Your task to perform on an android device: add a contact in the contacts app Image 0: 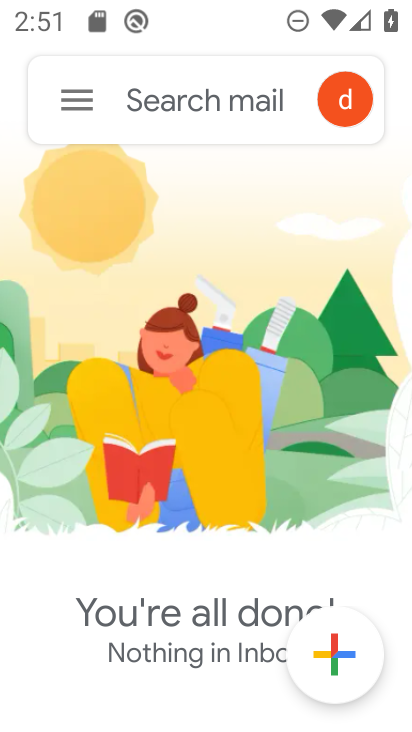
Step 0: press back button
Your task to perform on an android device: add a contact in the contacts app Image 1: 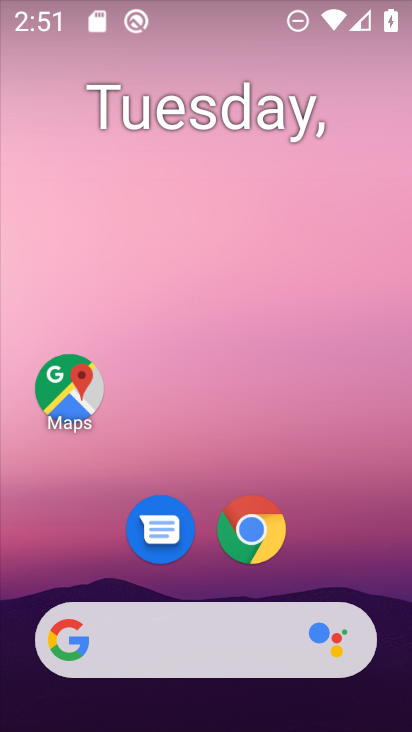
Step 1: drag from (220, 478) to (286, 33)
Your task to perform on an android device: add a contact in the contacts app Image 2: 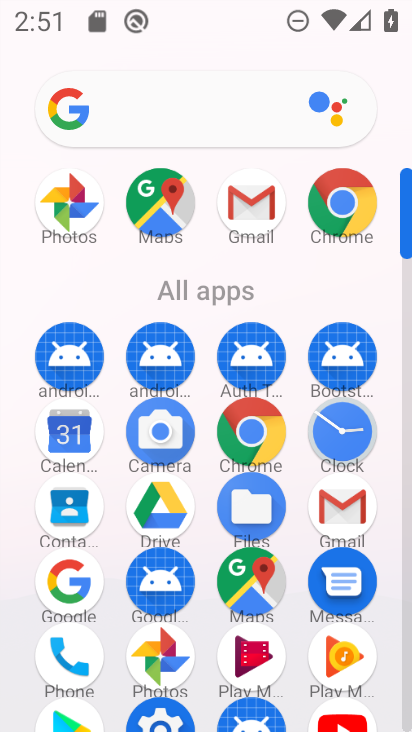
Step 2: click (66, 523)
Your task to perform on an android device: add a contact in the contacts app Image 3: 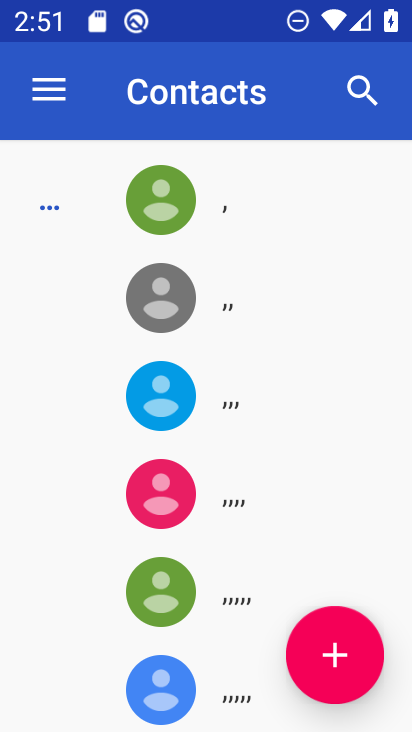
Step 3: click (336, 647)
Your task to perform on an android device: add a contact in the contacts app Image 4: 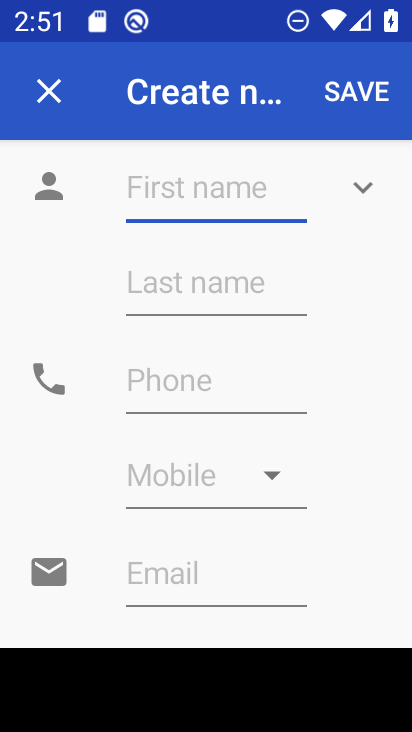
Step 4: type "fhgh"
Your task to perform on an android device: add a contact in the contacts app Image 5: 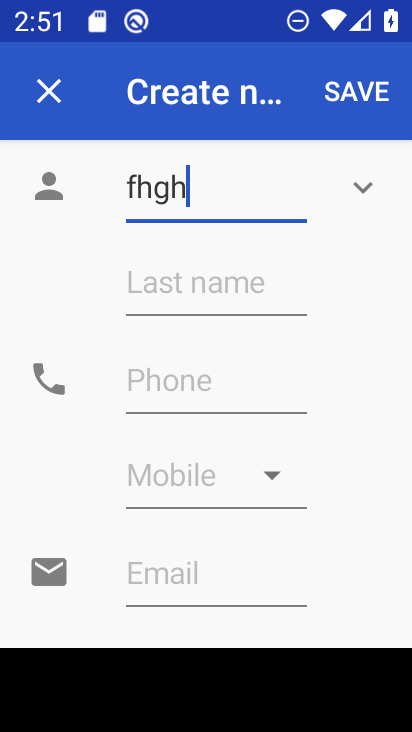
Step 5: click (153, 389)
Your task to perform on an android device: add a contact in the contacts app Image 6: 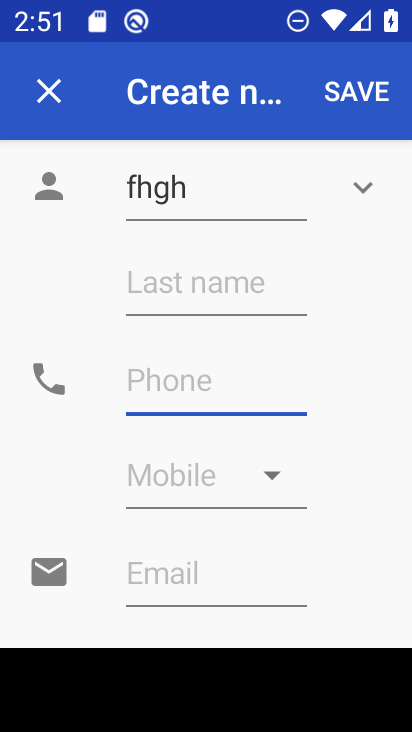
Step 6: type "6764"
Your task to perform on an android device: add a contact in the contacts app Image 7: 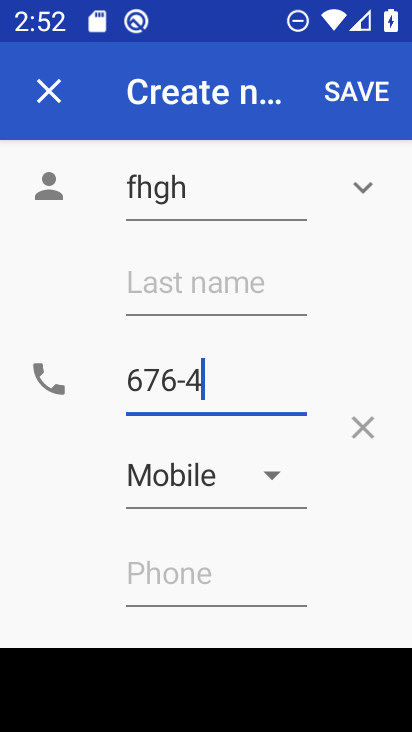
Step 7: click (337, 92)
Your task to perform on an android device: add a contact in the contacts app Image 8: 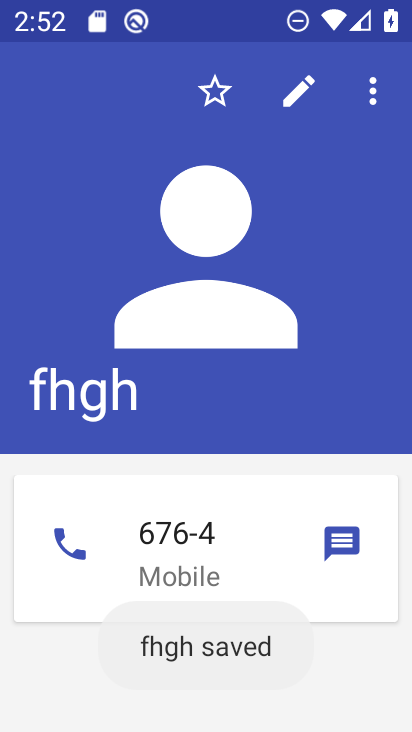
Step 8: task complete